Your task to perform on an android device: change the clock display to analog Image 0: 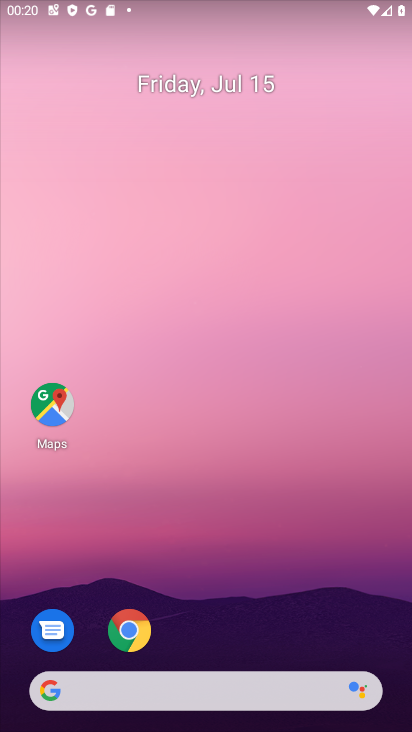
Step 0: drag from (276, 615) to (258, 298)
Your task to perform on an android device: change the clock display to analog Image 1: 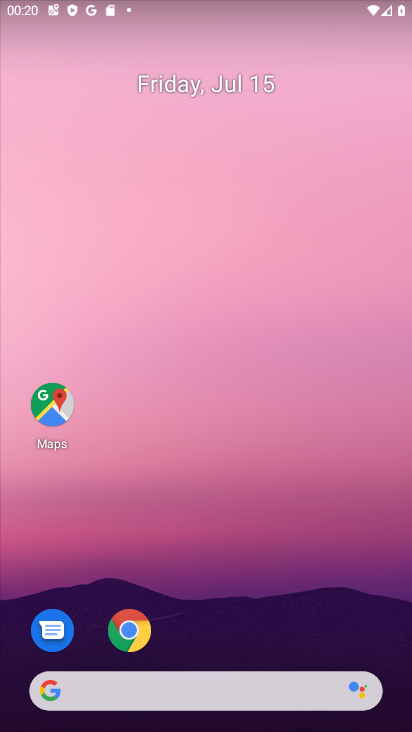
Step 1: drag from (235, 647) to (242, 329)
Your task to perform on an android device: change the clock display to analog Image 2: 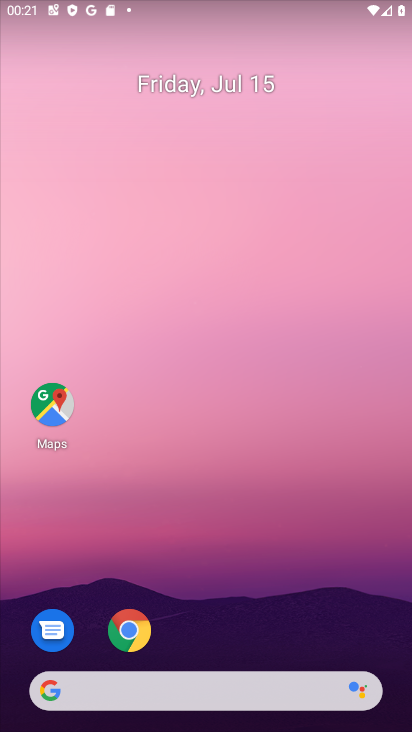
Step 2: drag from (279, 632) to (261, 239)
Your task to perform on an android device: change the clock display to analog Image 3: 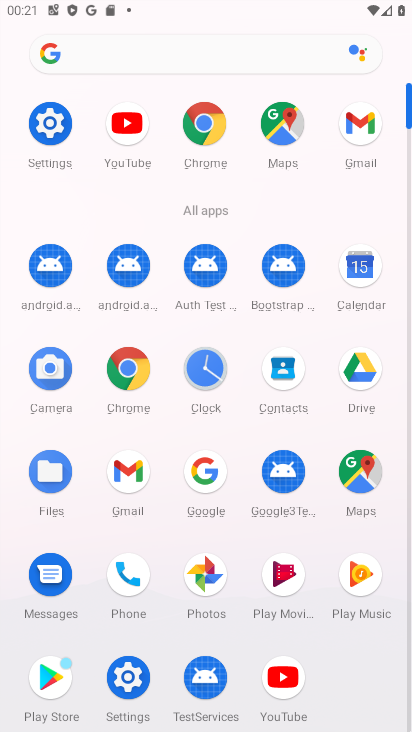
Step 3: click (215, 370)
Your task to perform on an android device: change the clock display to analog Image 4: 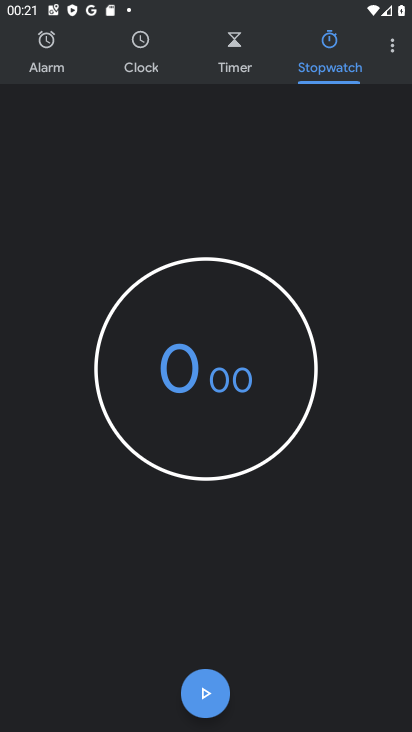
Step 4: click (405, 40)
Your task to perform on an android device: change the clock display to analog Image 5: 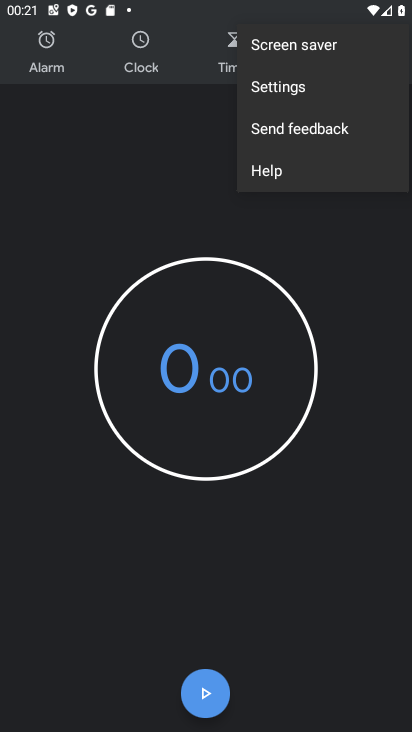
Step 5: click (299, 96)
Your task to perform on an android device: change the clock display to analog Image 6: 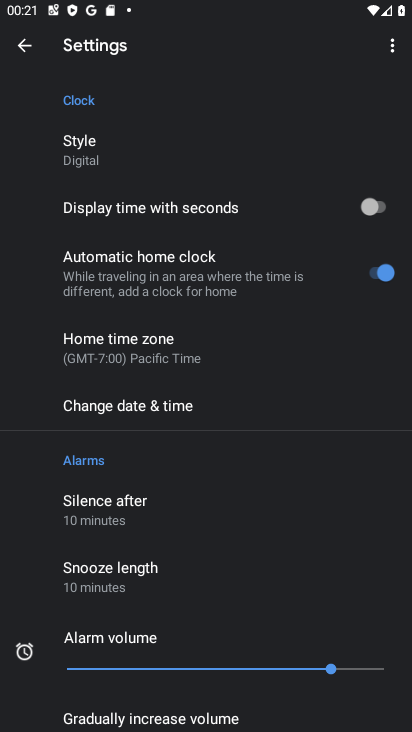
Step 6: click (109, 162)
Your task to perform on an android device: change the clock display to analog Image 7: 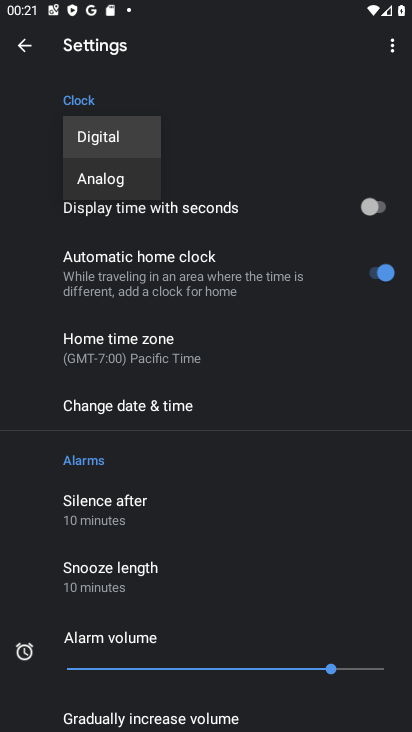
Step 7: click (104, 175)
Your task to perform on an android device: change the clock display to analog Image 8: 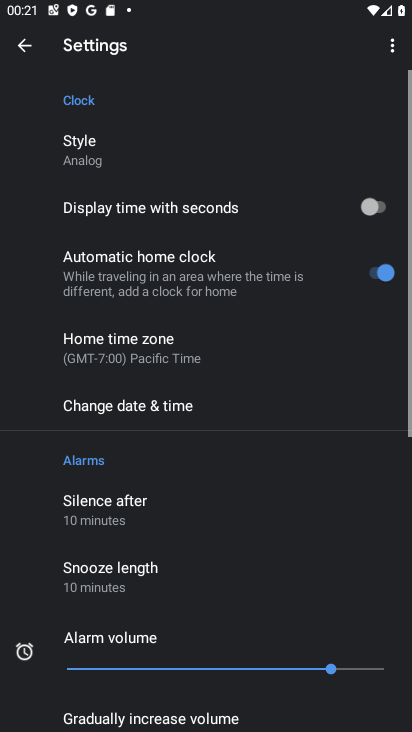
Step 8: task complete